Your task to perform on an android device: toggle pop-ups in chrome Image 0: 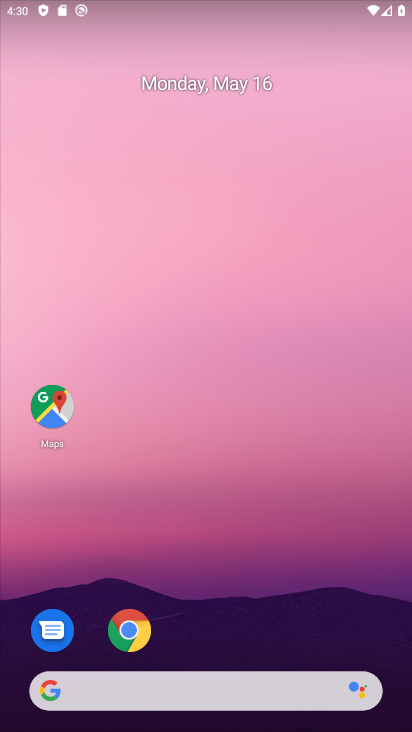
Step 0: click (130, 623)
Your task to perform on an android device: toggle pop-ups in chrome Image 1: 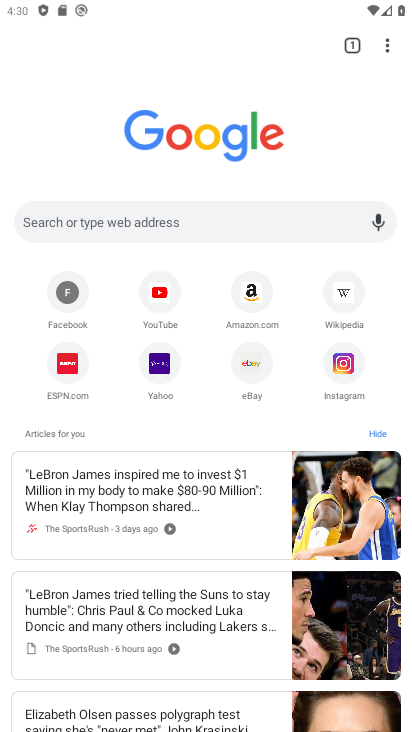
Step 1: click (130, 623)
Your task to perform on an android device: toggle pop-ups in chrome Image 2: 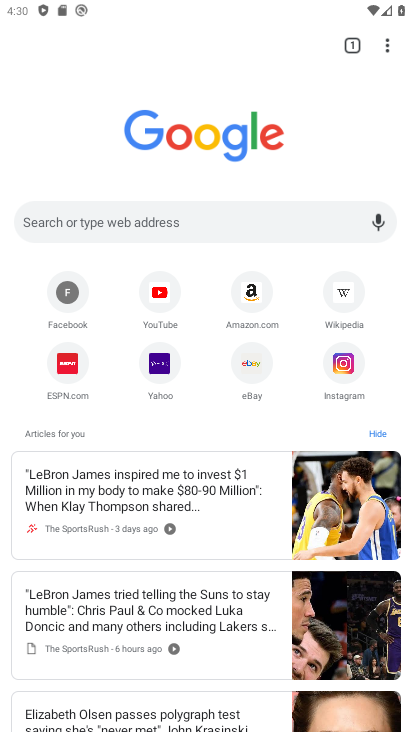
Step 2: click (130, 623)
Your task to perform on an android device: toggle pop-ups in chrome Image 3: 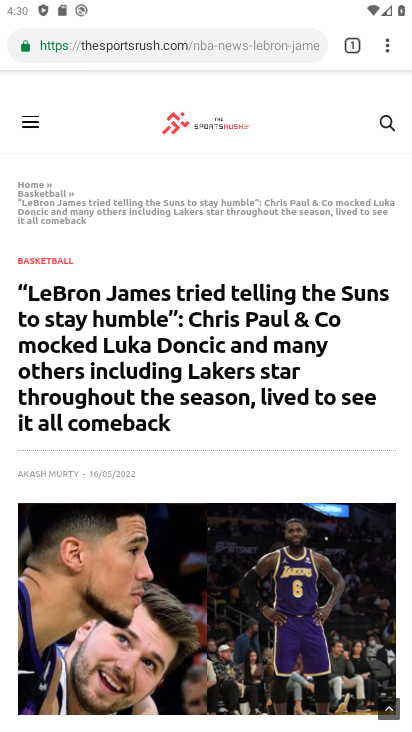
Step 3: drag from (393, 41) to (256, 546)
Your task to perform on an android device: toggle pop-ups in chrome Image 4: 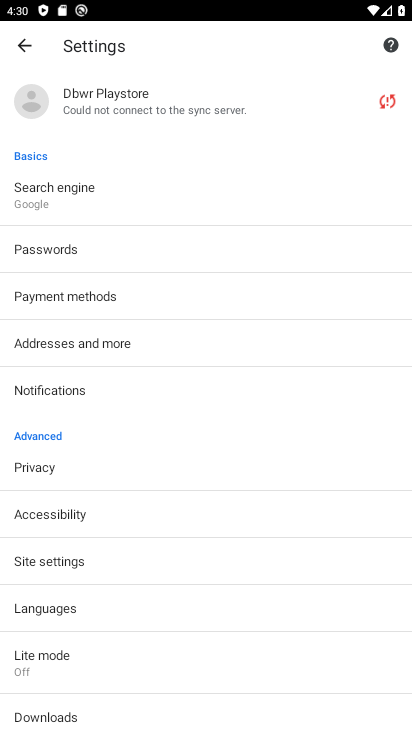
Step 4: click (128, 560)
Your task to perform on an android device: toggle pop-ups in chrome Image 5: 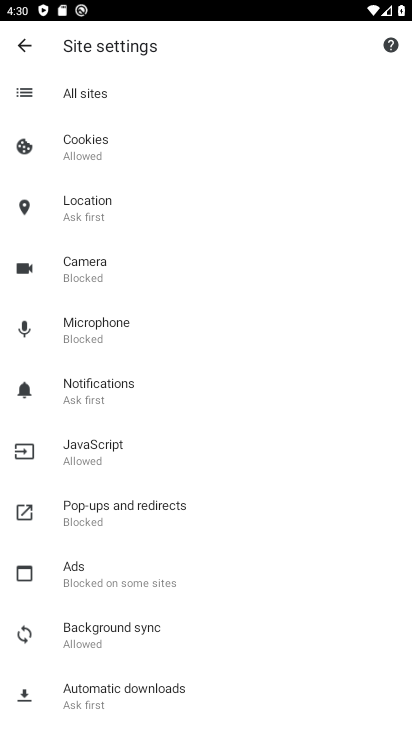
Step 5: click (186, 517)
Your task to perform on an android device: toggle pop-ups in chrome Image 6: 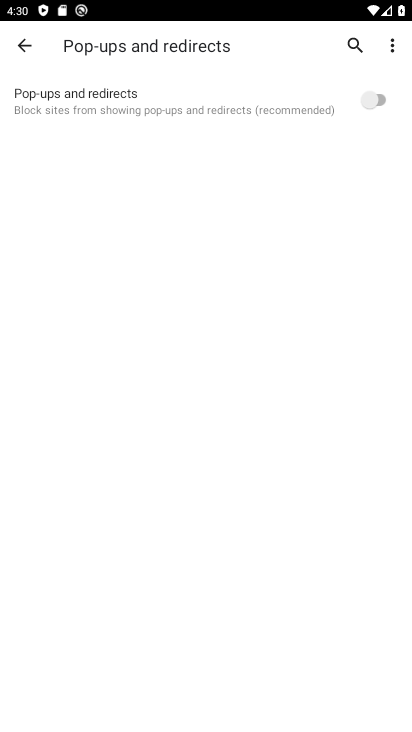
Step 6: click (210, 125)
Your task to perform on an android device: toggle pop-ups in chrome Image 7: 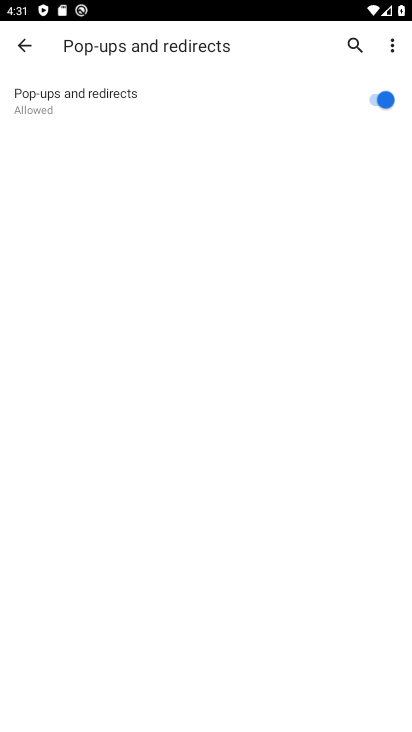
Step 7: task complete